Your task to perform on an android device: change keyboard looks Image 0: 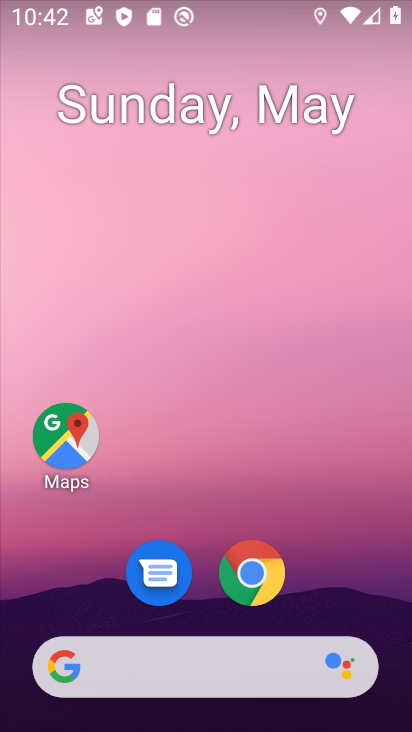
Step 0: drag from (217, 614) to (153, 273)
Your task to perform on an android device: change keyboard looks Image 1: 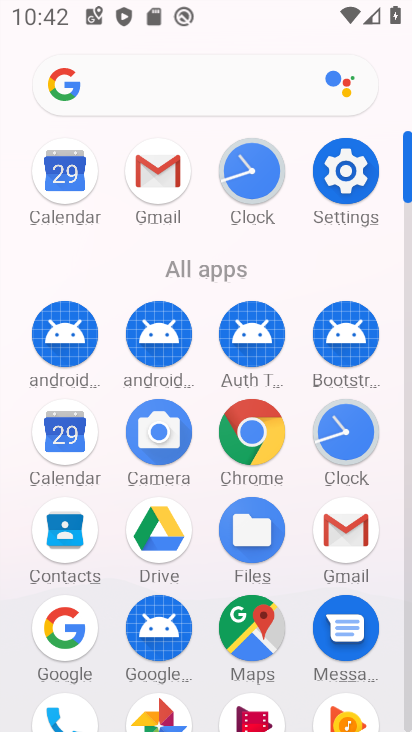
Step 1: click (364, 176)
Your task to perform on an android device: change keyboard looks Image 2: 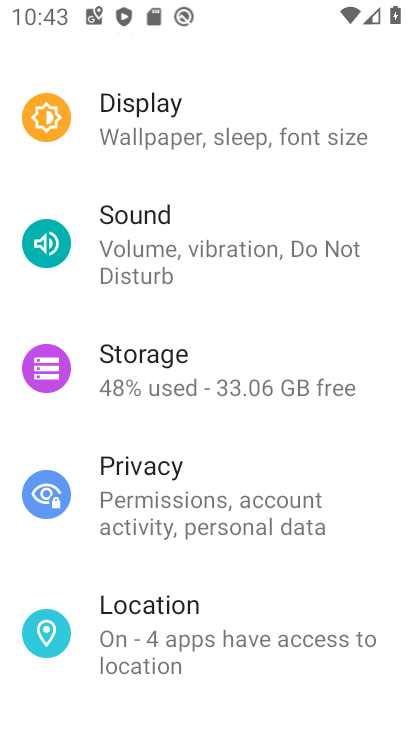
Step 2: drag from (188, 556) to (177, 208)
Your task to perform on an android device: change keyboard looks Image 3: 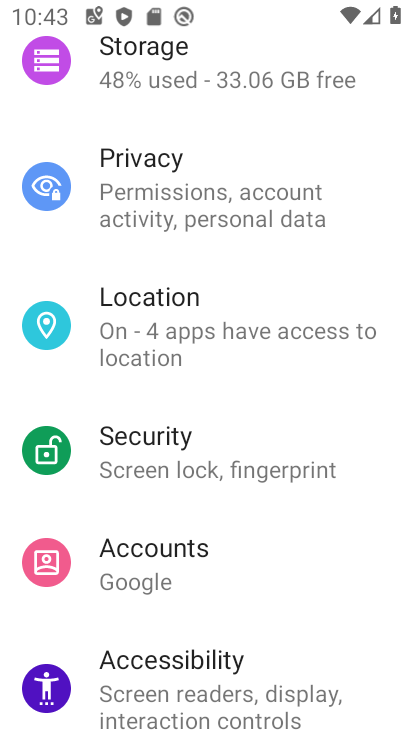
Step 3: drag from (228, 616) to (232, 263)
Your task to perform on an android device: change keyboard looks Image 4: 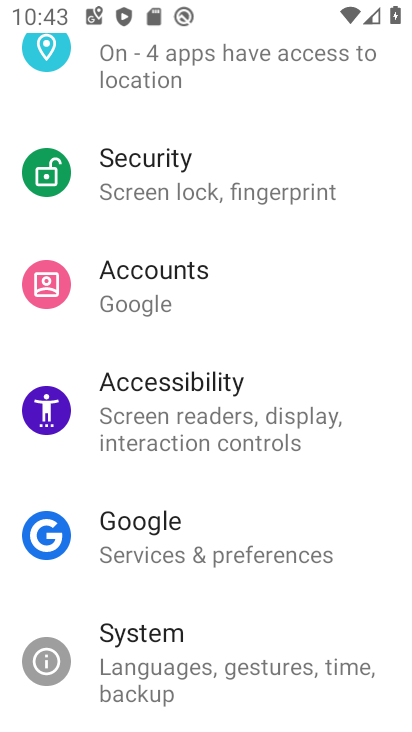
Step 4: click (157, 658)
Your task to perform on an android device: change keyboard looks Image 5: 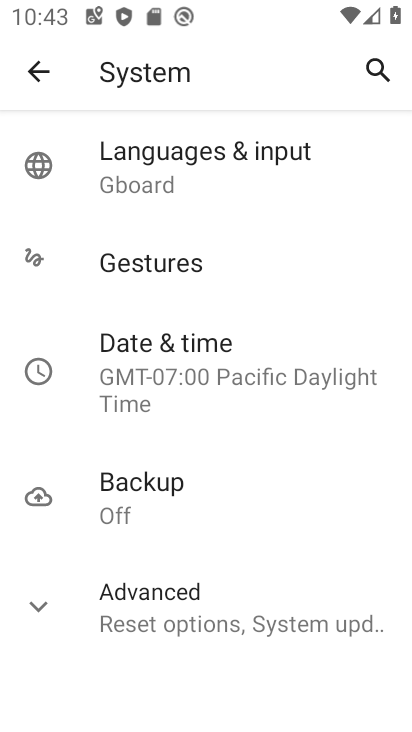
Step 5: click (196, 173)
Your task to perform on an android device: change keyboard looks Image 6: 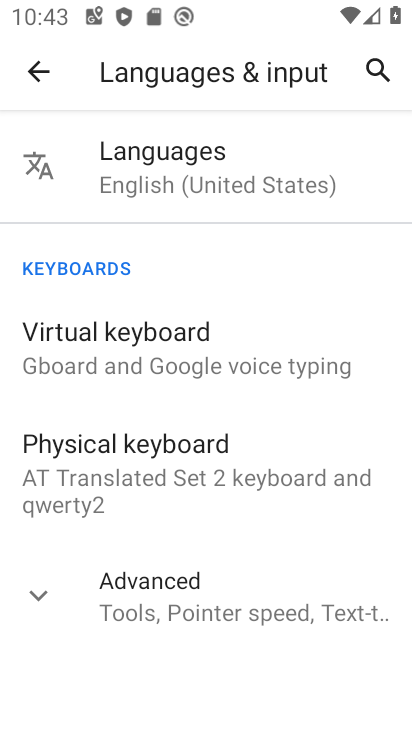
Step 6: click (208, 347)
Your task to perform on an android device: change keyboard looks Image 7: 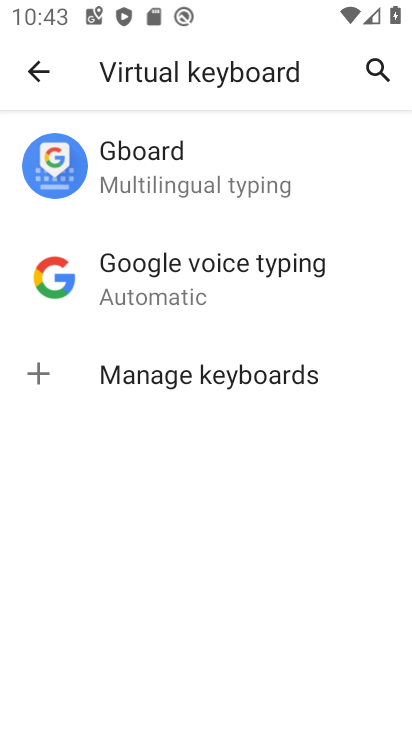
Step 7: click (234, 384)
Your task to perform on an android device: change keyboard looks Image 8: 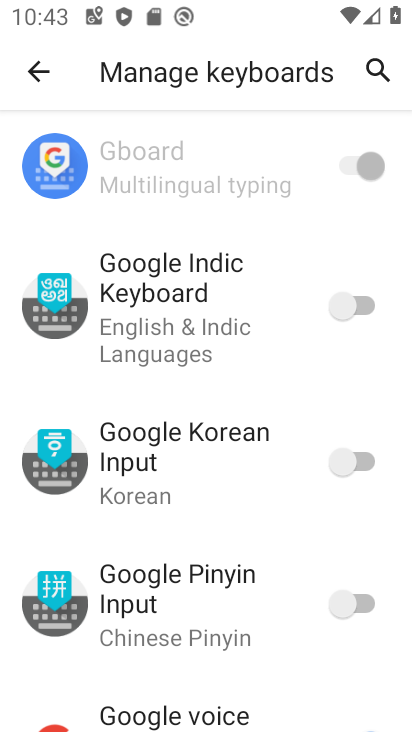
Step 8: click (340, 161)
Your task to perform on an android device: change keyboard looks Image 9: 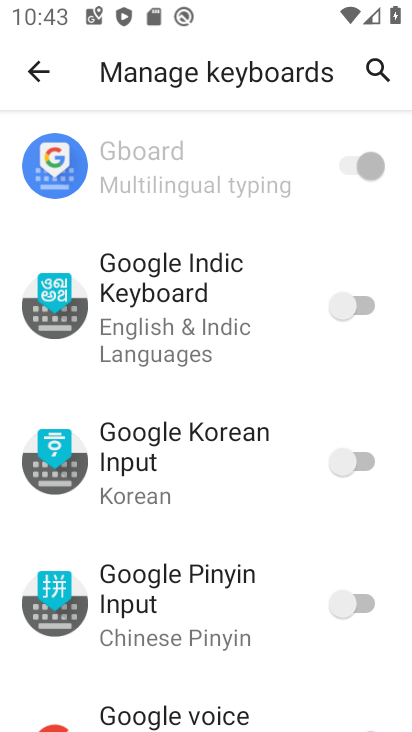
Step 9: task complete